Your task to perform on an android device: all mails in gmail Image 0: 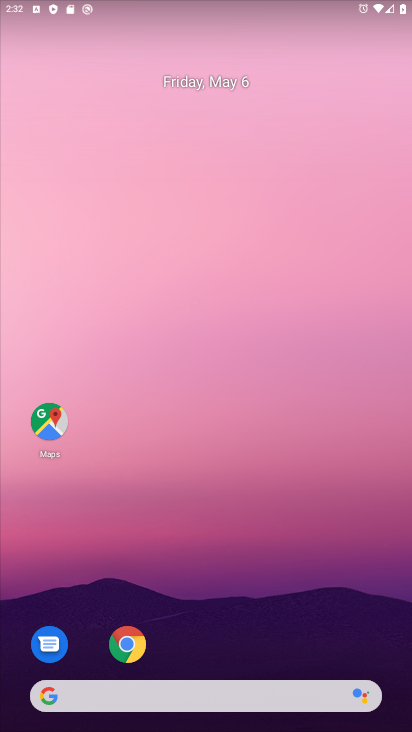
Step 0: drag from (301, 723) to (355, 69)
Your task to perform on an android device: all mails in gmail Image 1: 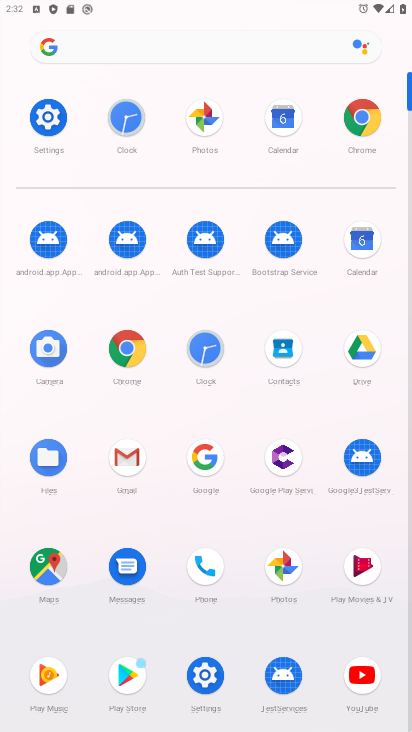
Step 1: click (128, 469)
Your task to perform on an android device: all mails in gmail Image 2: 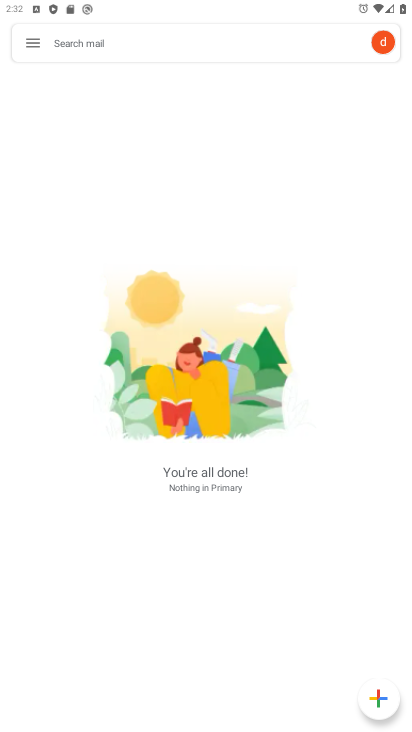
Step 2: click (35, 40)
Your task to perform on an android device: all mails in gmail Image 3: 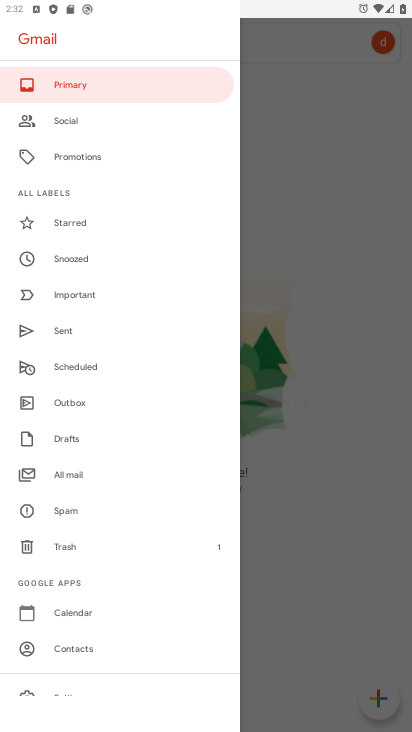
Step 3: click (91, 475)
Your task to perform on an android device: all mails in gmail Image 4: 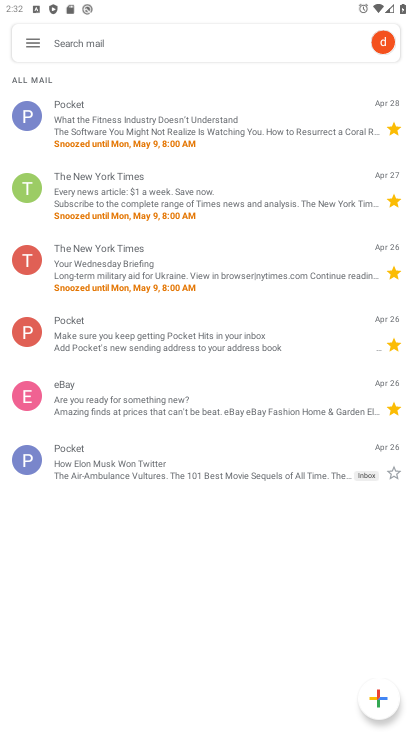
Step 4: task complete